Your task to perform on an android device: Open calendar and show me the fourth week of next month Image 0: 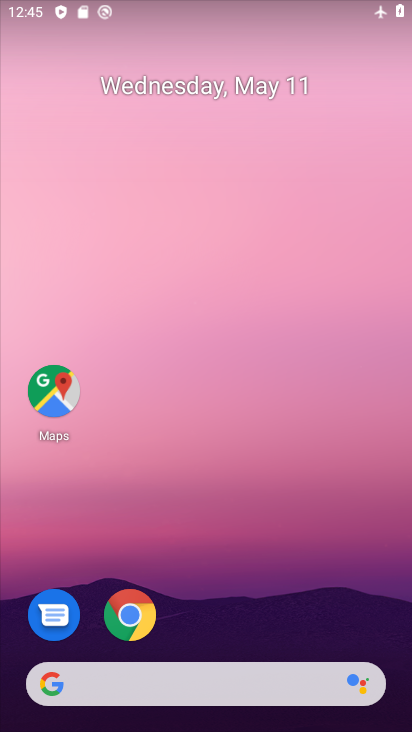
Step 0: drag from (314, 612) to (319, 150)
Your task to perform on an android device: Open calendar and show me the fourth week of next month Image 1: 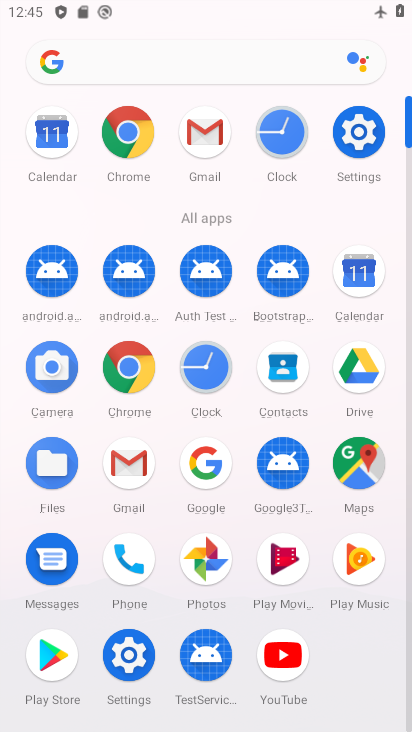
Step 1: click (361, 275)
Your task to perform on an android device: Open calendar and show me the fourth week of next month Image 2: 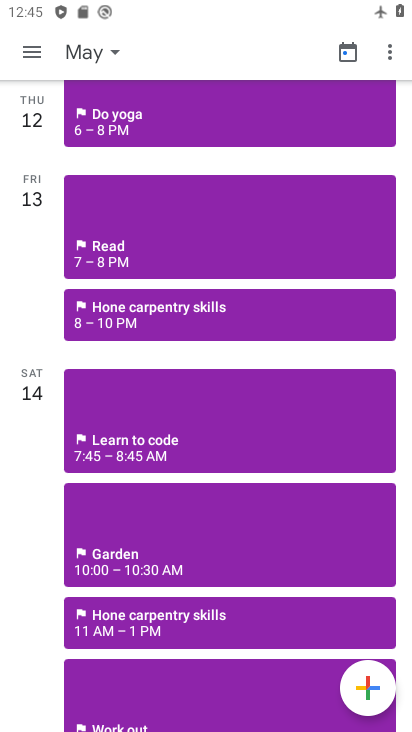
Step 2: drag from (216, 152) to (218, 521)
Your task to perform on an android device: Open calendar and show me the fourth week of next month Image 3: 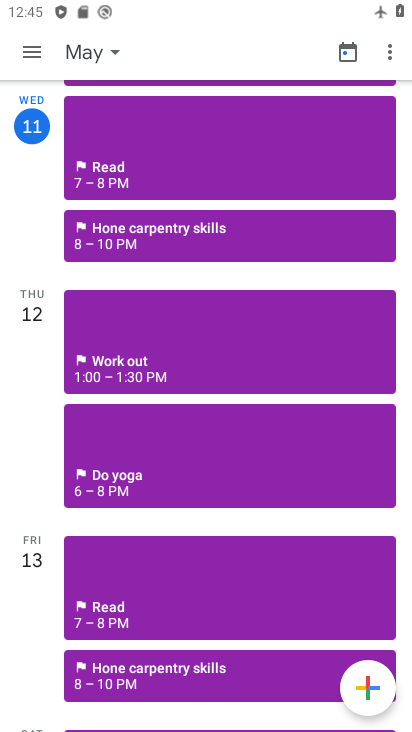
Step 3: click (90, 49)
Your task to perform on an android device: Open calendar and show me the fourth week of next month Image 4: 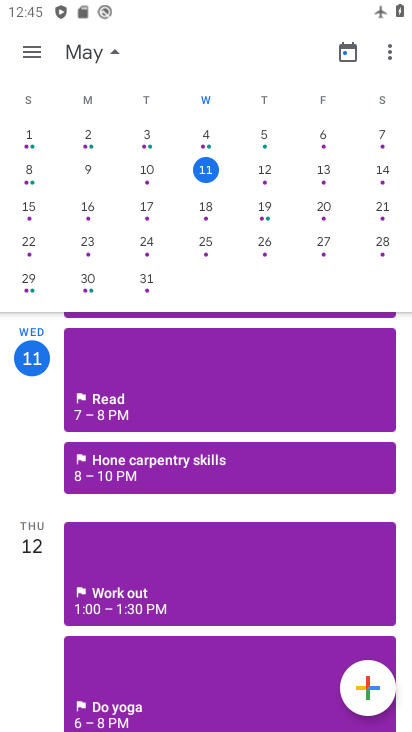
Step 4: drag from (329, 121) to (20, 104)
Your task to perform on an android device: Open calendar and show me the fourth week of next month Image 5: 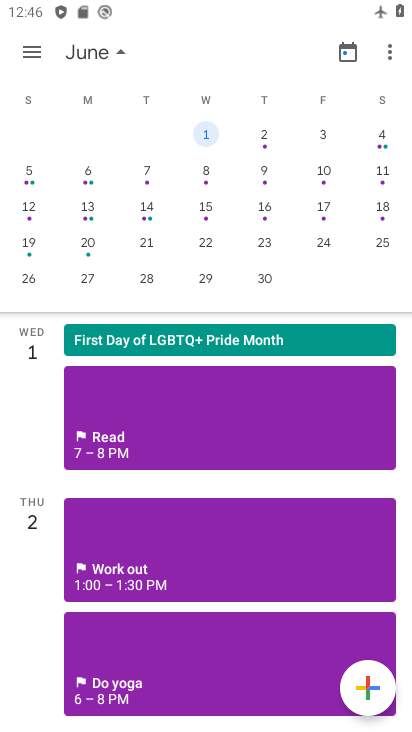
Step 5: click (22, 239)
Your task to perform on an android device: Open calendar and show me the fourth week of next month Image 6: 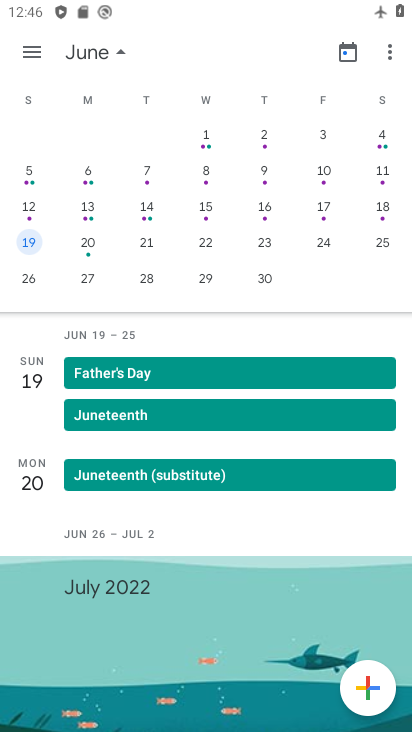
Step 6: task complete